Your task to perform on an android device: What's the weather going to be this weekend? Image 0: 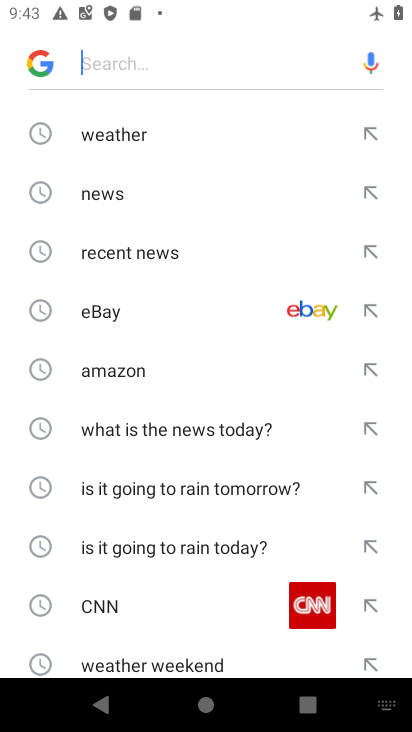
Step 0: click (222, 134)
Your task to perform on an android device: What's the weather going to be this weekend? Image 1: 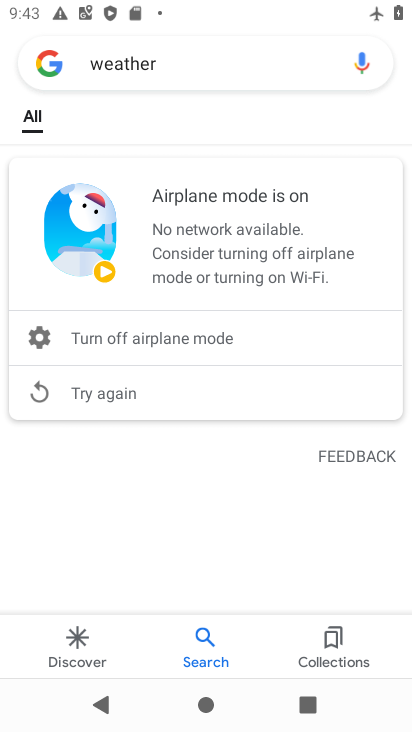
Step 1: press home button
Your task to perform on an android device: What's the weather going to be this weekend? Image 2: 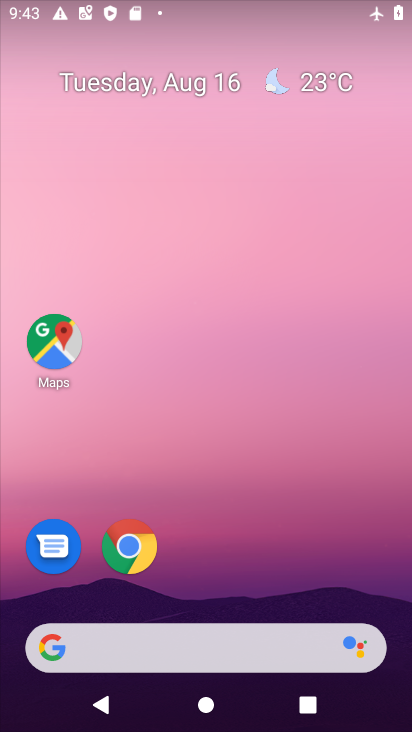
Step 2: click (332, 79)
Your task to perform on an android device: What's the weather going to be this weekend? Image 3: 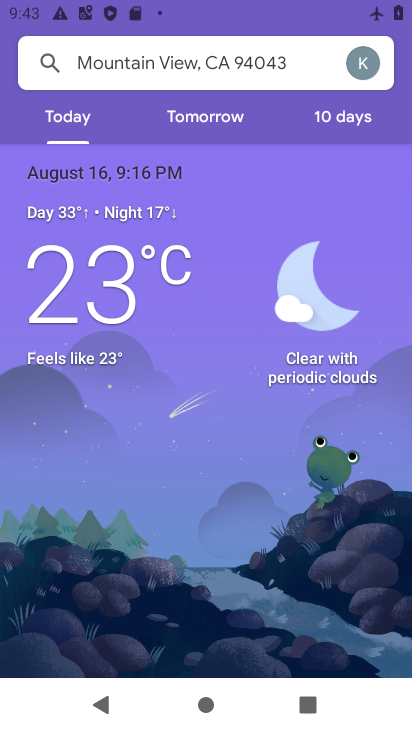
Step 3: click (342, 118)
Your task to perform on an android device: What's the weather going to be this weekend? Image 4: 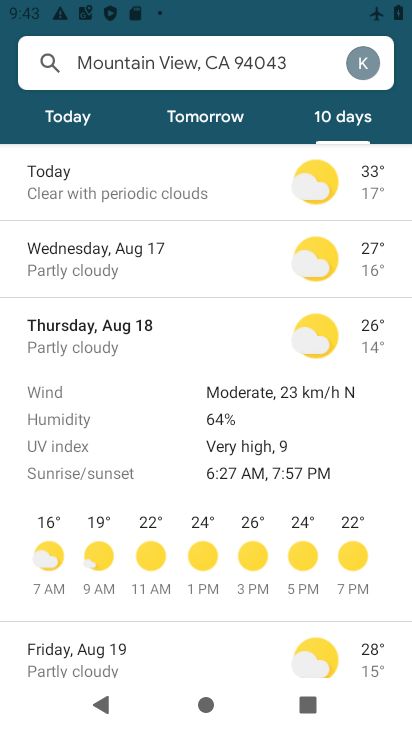
Step 4: click (174, 330)
Your task to perform on an android device: What's the weather going to be this weekend? Image 5: 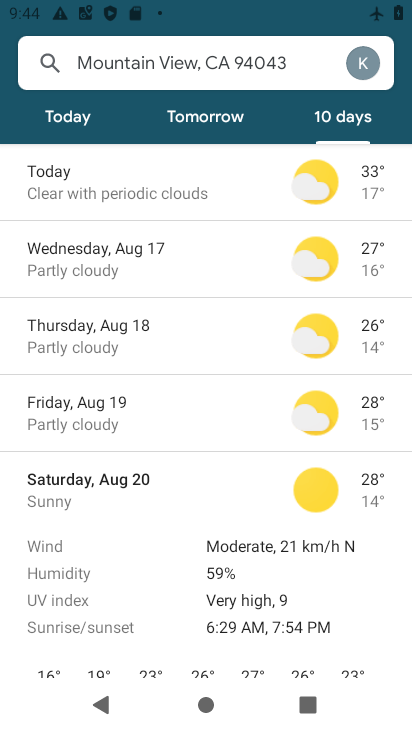
Step 5: task complete